Your task to perform on an android device: turn notification dots on Image 0: 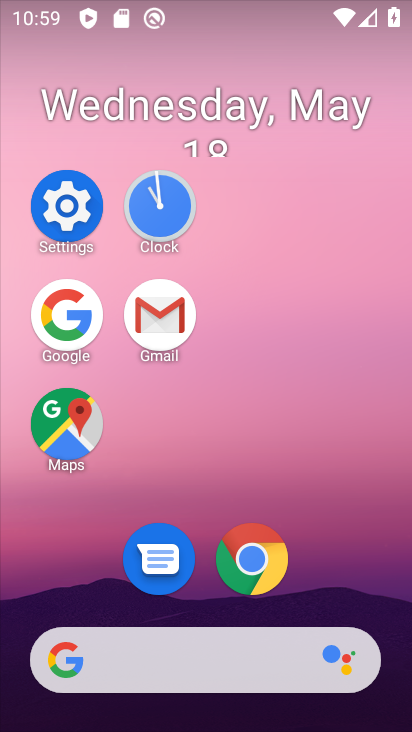
Step 0: click (60, 198)
Your task to perform on an android device: turn notification dots on Image 1: 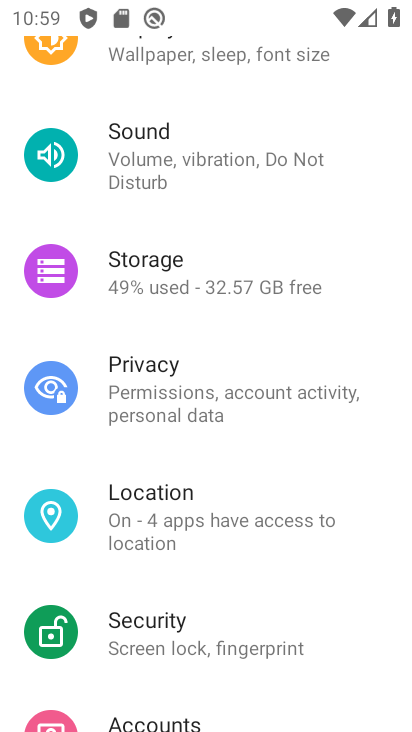
Step 1: drag from (286, 208) to (231, 583)
Your task to perform on an android device: turn notification dots on Image 2: 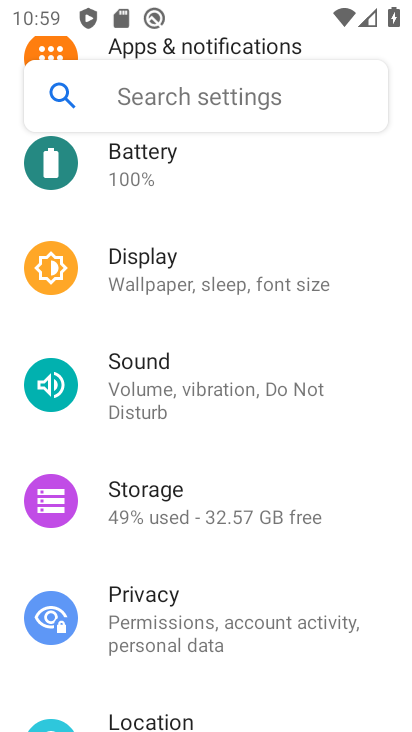
Step 2: drag from (283, 189) to (239, 559)
Your task to perform on an android device: turn notification dots on Image 3: 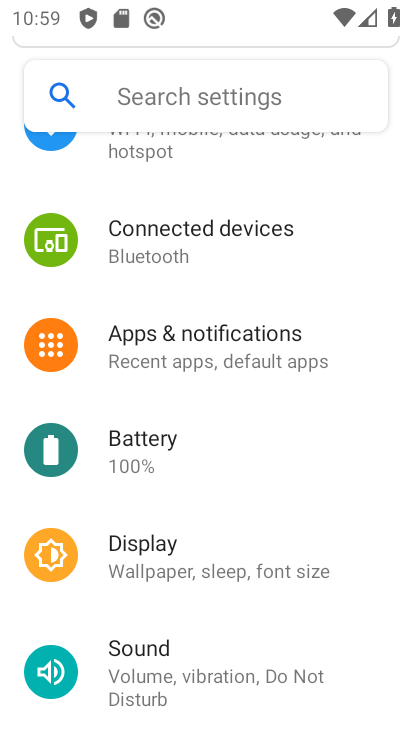
Step 3: click (215, 341)
Your task to perform on an android device: turn notification dots on Image 4: 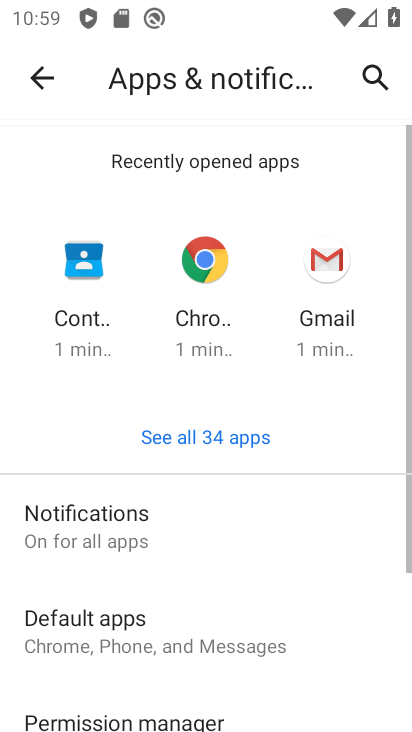
Step 4: click (133, 524)
Your task to perform on an android device: turn notification dots on Image 5: 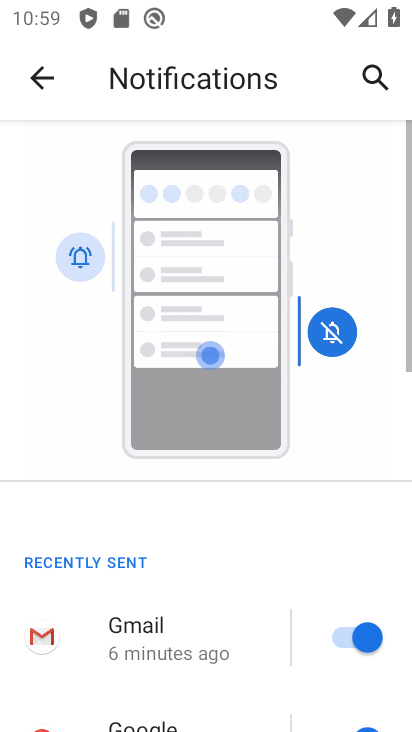
Step 5: drag from (207, 501) to (265, 149)
Your task to perform on an android device: turn notification dots on Image 6: 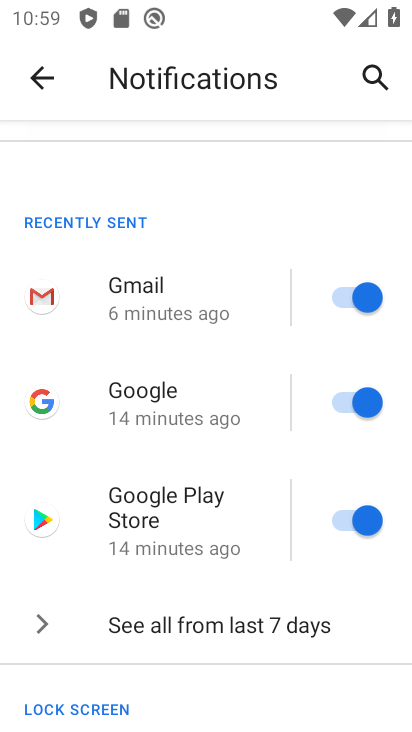
Step 6: drag from (258, 659) to (275, 203)
Your task to perform on an android device: turn notification dots on Image 7: 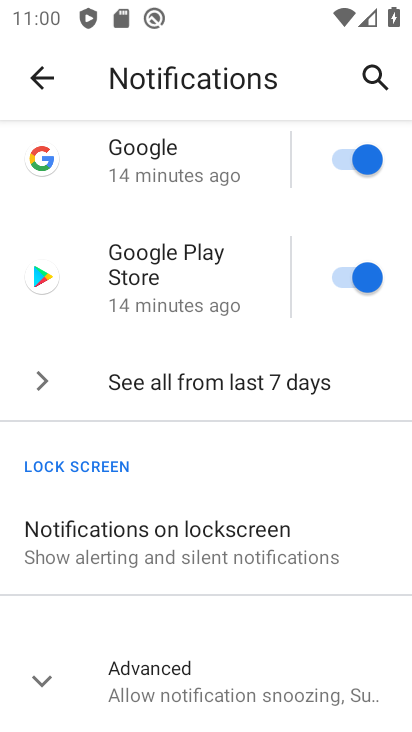
Step 7: click (155, 689)
Your task to perform on an android device: turn notification dots on Image 8: 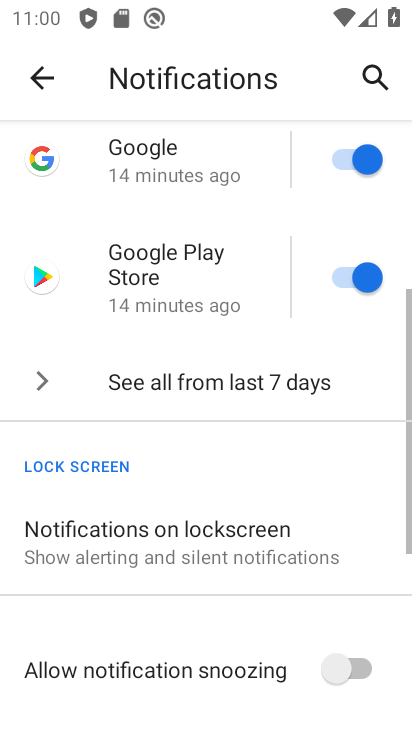
Step 8: task complete